Your task to perform on an android device: check data usage Image 0: 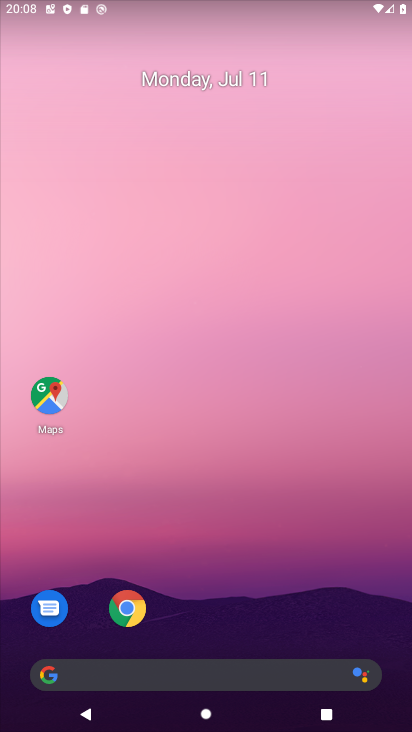
Step 0: drag from (292, 579) to (187, 65)
Your task to perform on an android device: check data usage Image 1: 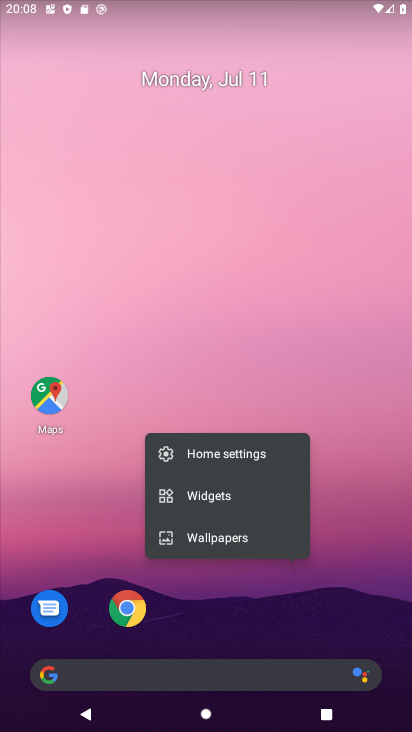
Step 1: click (187, 236)
Your task to perform on an android device: check data usage Image 2: 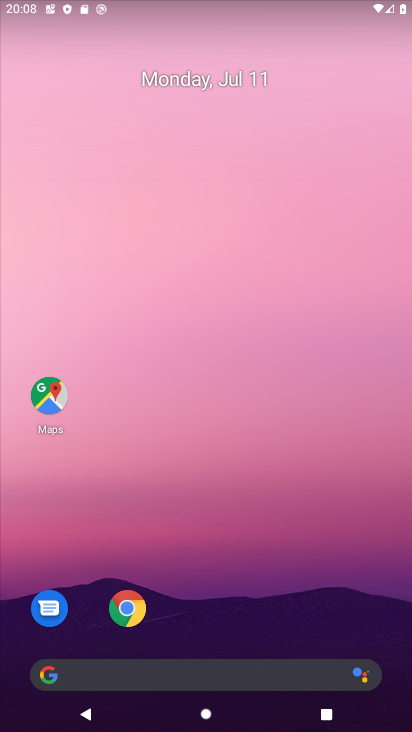
Step 2: drag from (245, 575) to (239, 102)
Your task to perform on an android device: check data usage Image 3: 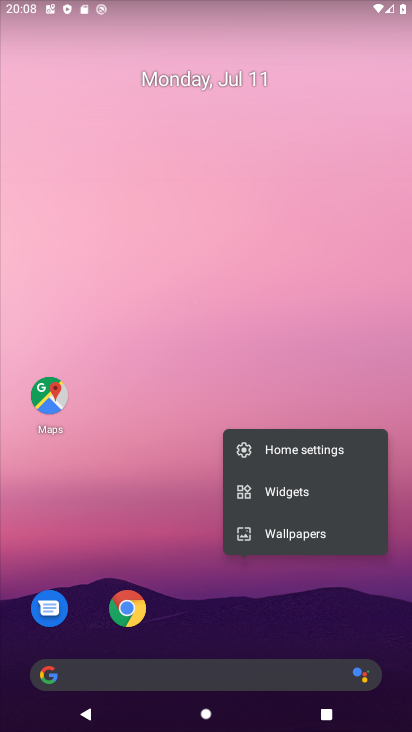
Step 3: click (196, 246)
Your task to perform on an android device: check data usage Image 4: 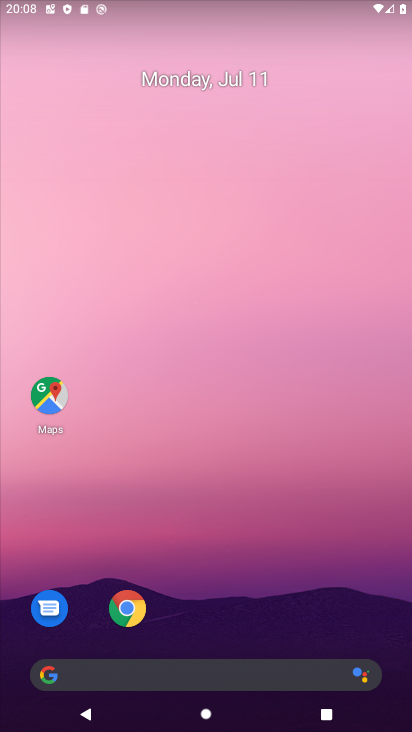
Step 4: drag from (205, 598) to (94, 9)
Your task to perform on an android device: check data usage Image 5: 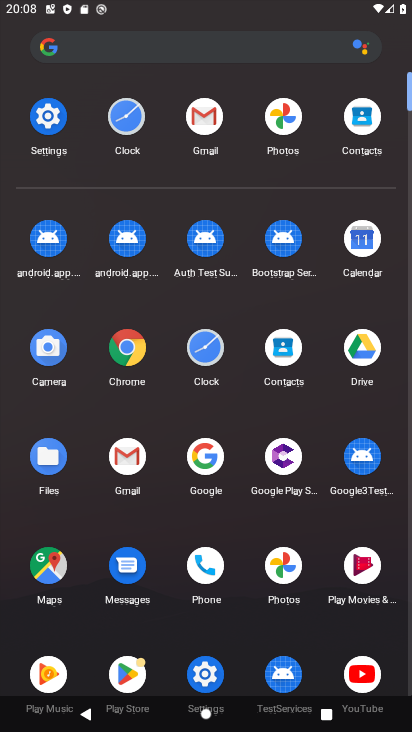
Step 5: click (46, 134)
Your task to perform on an android device: check data usage Image 6: 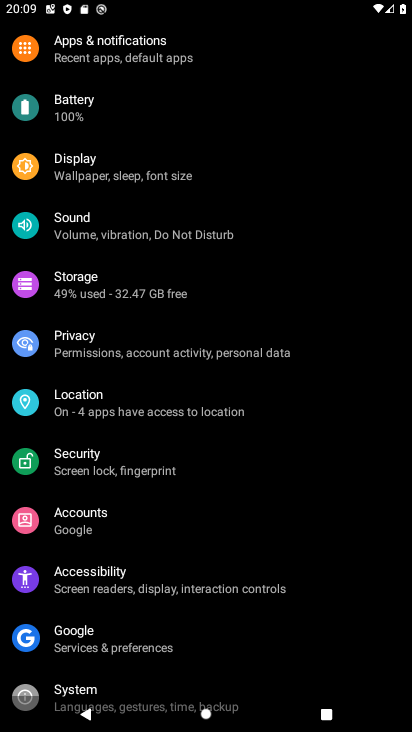
Step 6: drag from (155, 201) to (180, 307)
Your task to perform on an android device: check data usage Image 7: 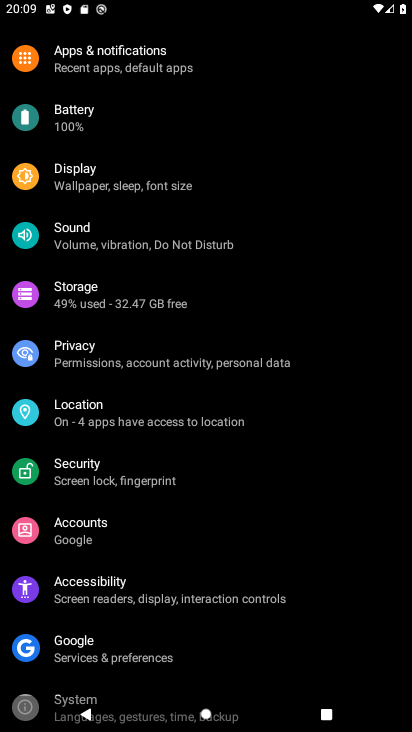
Step 7: drag from (242, 362) to (284, 570)
Your task to perform on an android device: check data usage Image 8: 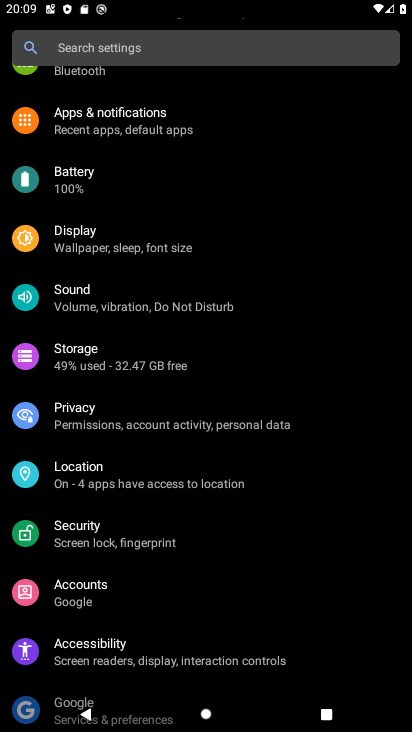
Step 8: drag from (184, 199) to (256, 499)
Your task to perform on an android device: check data usage Image 9: 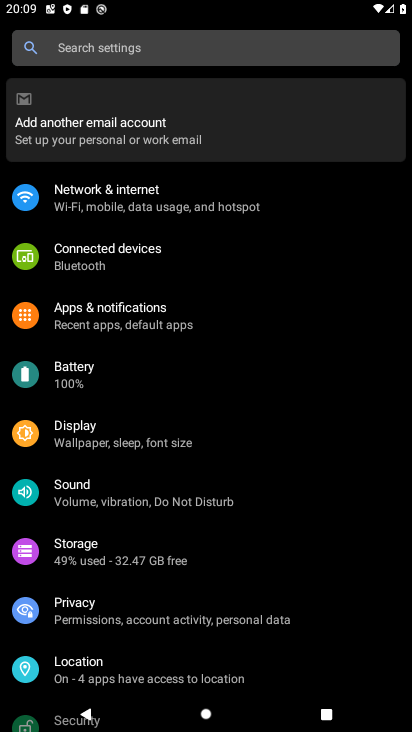
Step 9: click (202, 209)
Your task to perform on an android device: check data usage Image 10: 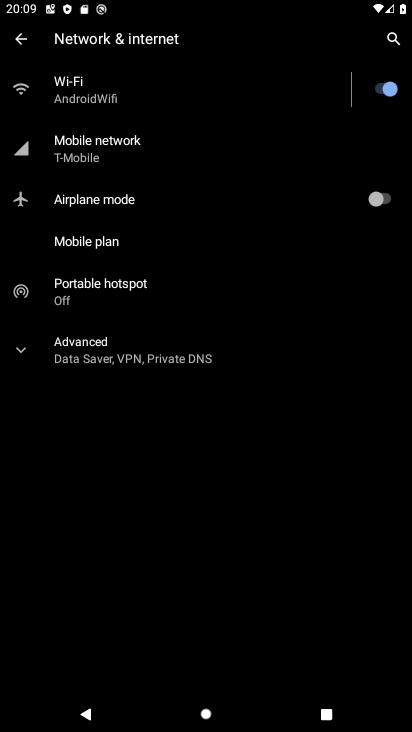
Step 10: click (138, 150)
Your task to perform on an android device: check data usage Image 11: 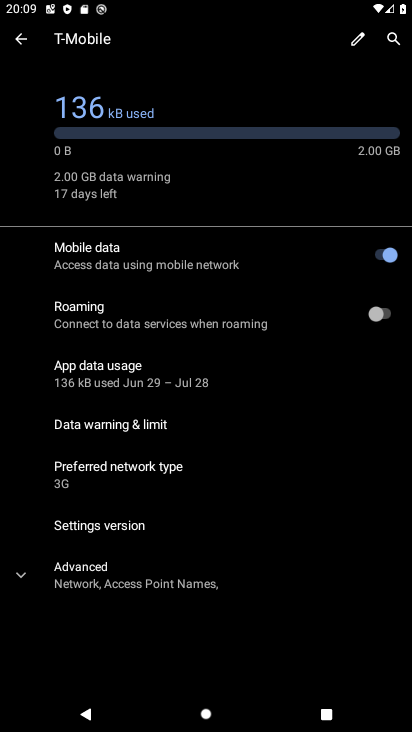
Step 11: task complete